Your task to perform on an android device: When is my next appointment? Image 0: 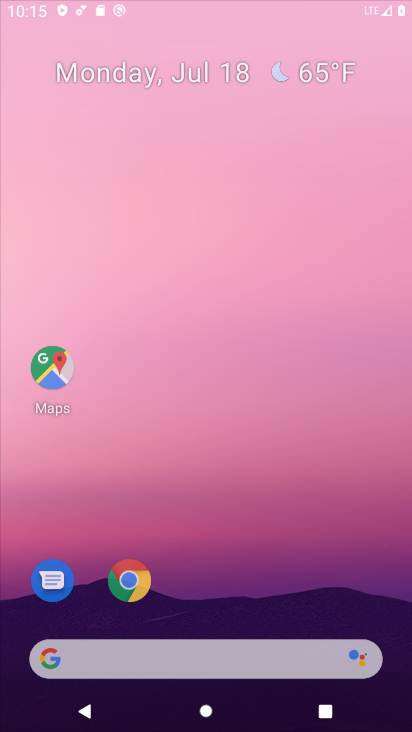
Step 0: press home button
Your task to perform on an android device: When is my next appointment? Image 1: 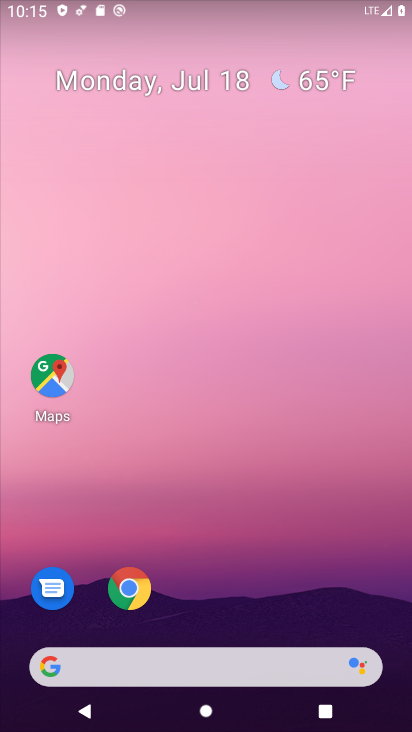
Step 1: drag from (257, 612) to (298, 59)
Your task to perform on an android device: When is my next appointment? Image 2: 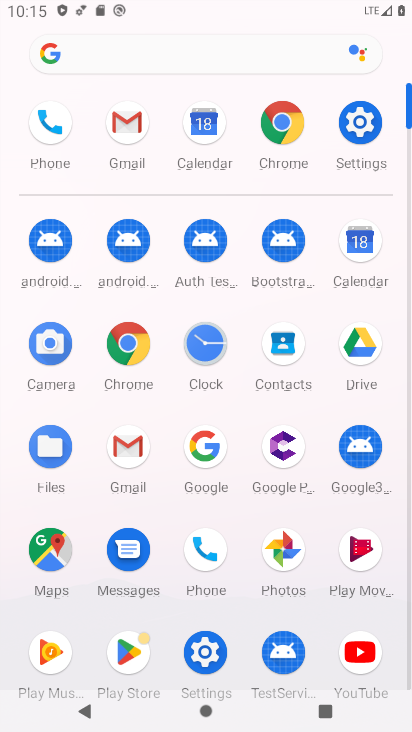
Step 2: click (356, 248)
Your task to perform on an android device: When is my next appointment? Image 3: 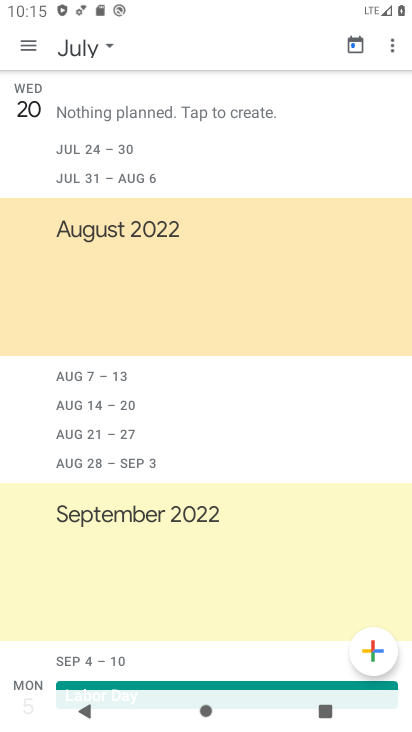
Step 3: click (20, 41)
Your task to perform on an android device: When is my next appointment? Image 4: 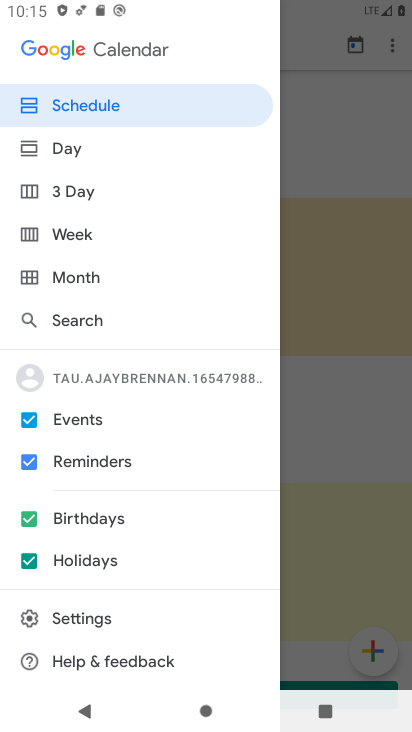
Step 4: click (107, 107)
Your task to perform on an android device: When is my next appointment? Image 5: 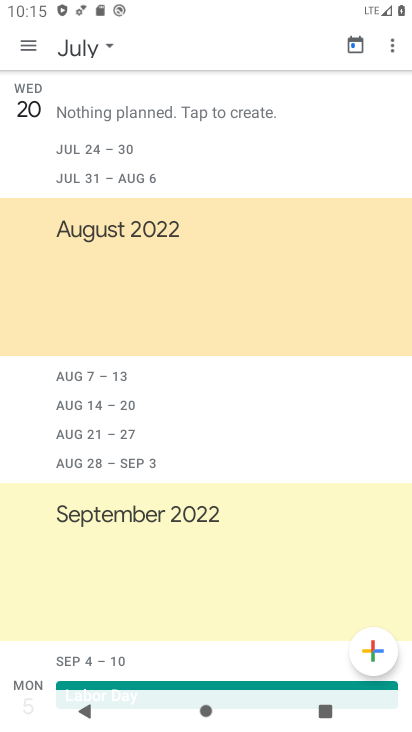
Step 5: task complete